Your task to perform on an android device: create a new album in the google photos Image 0: 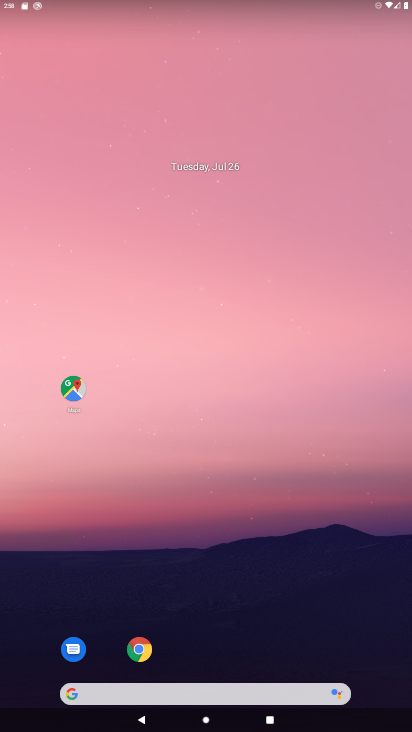
Step 0: drag from (184, 655) to (10, 41)
Your task to perform on an android device: create a new album in the google photos Image 1: 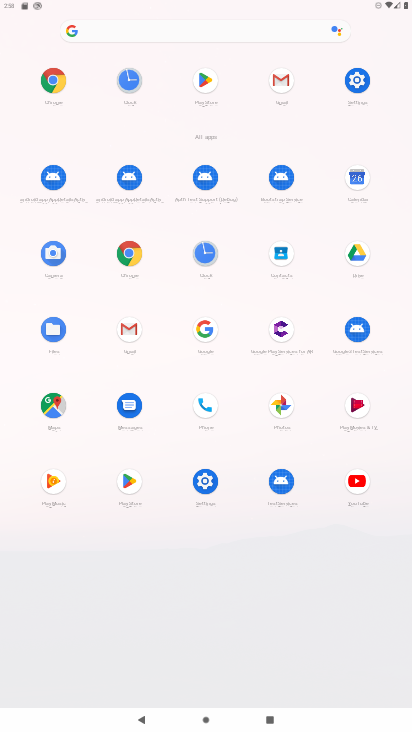
Step 1: click (280, 409)
Your task to perform on an android device: create a new album in the google photos Image 2: 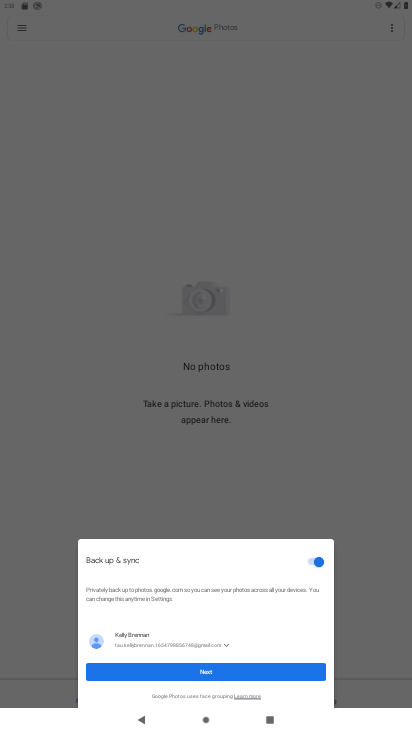
Step 2: task complete